Your task to perform on an android device: View the shopping cart on target.com. Add acer predator to the cart on target.com Image 0: 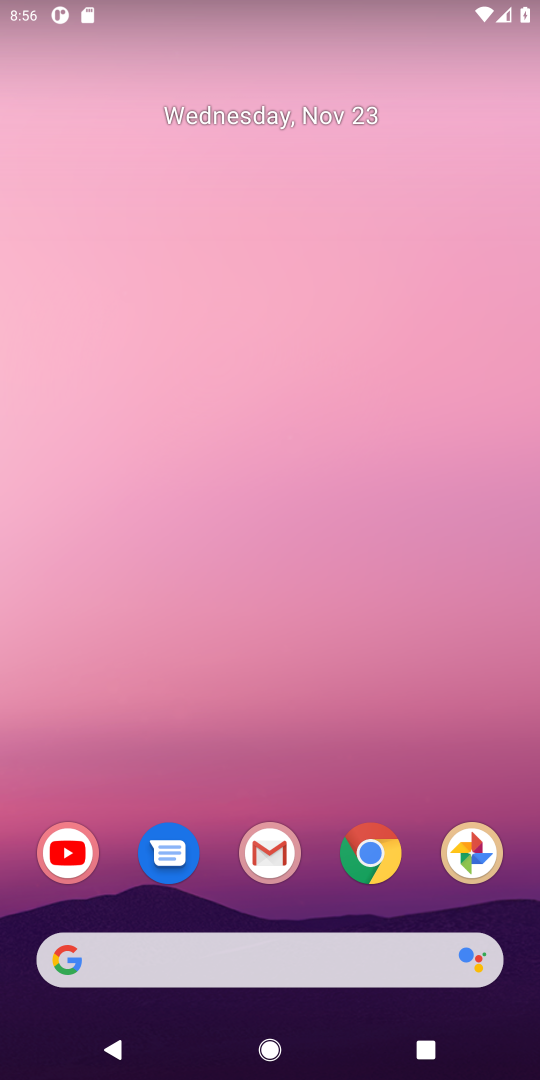
Step 0: click (374, 847)
Your task to perform on an android device: View the shopping cart on target.com. Add acer predator to the cart on target.com Image 1: 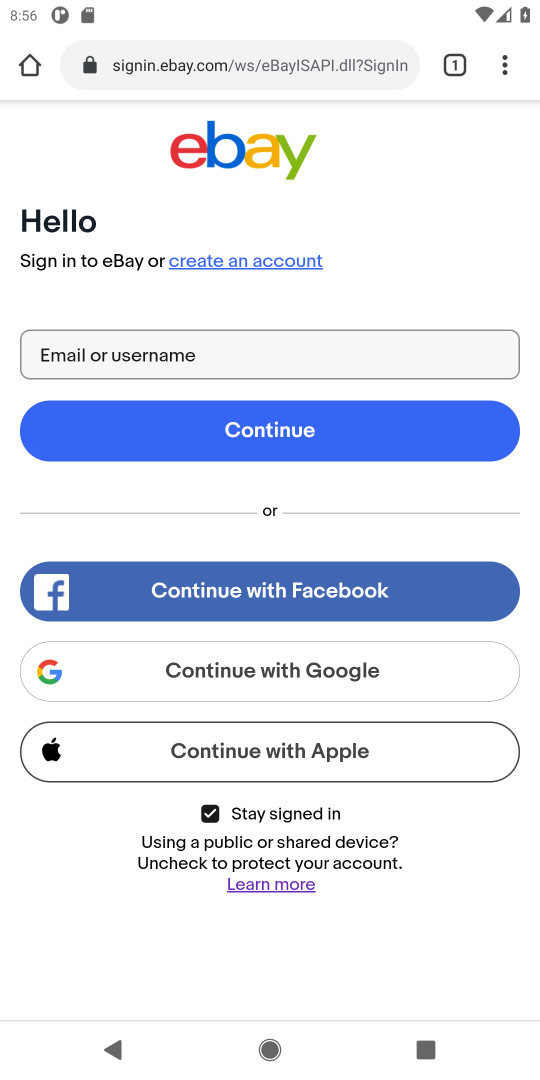
Step 1: click (204, 71)
Your task to perform on an android device: View the shopping cart on target.com. Add acer predator to the cart on target.com Image 2: 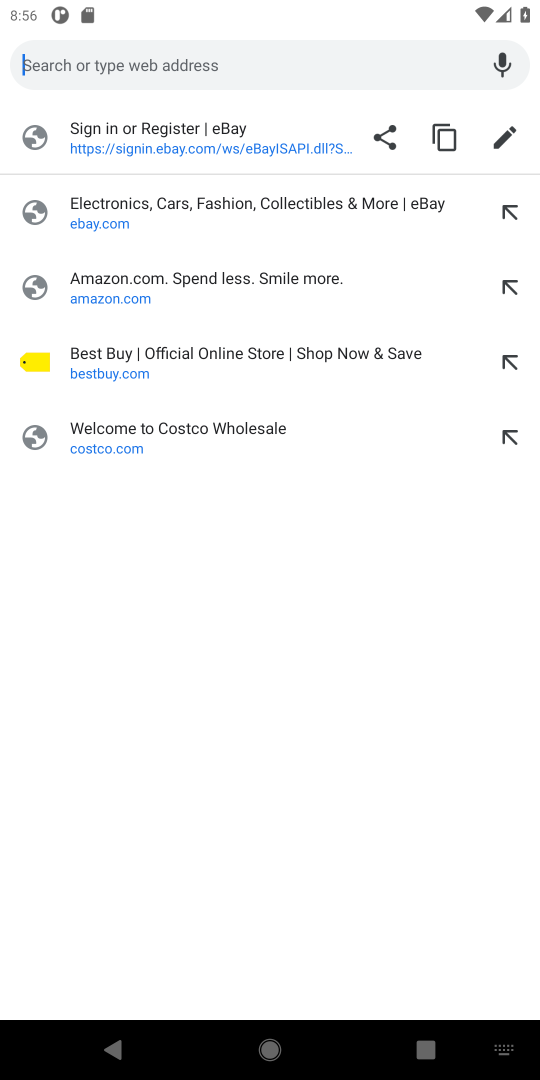
Step 2: type "target.com"
Your task to perform on an android device: View the shopping cart on target.com. Add acer predator to the cart on target.com Image 3: 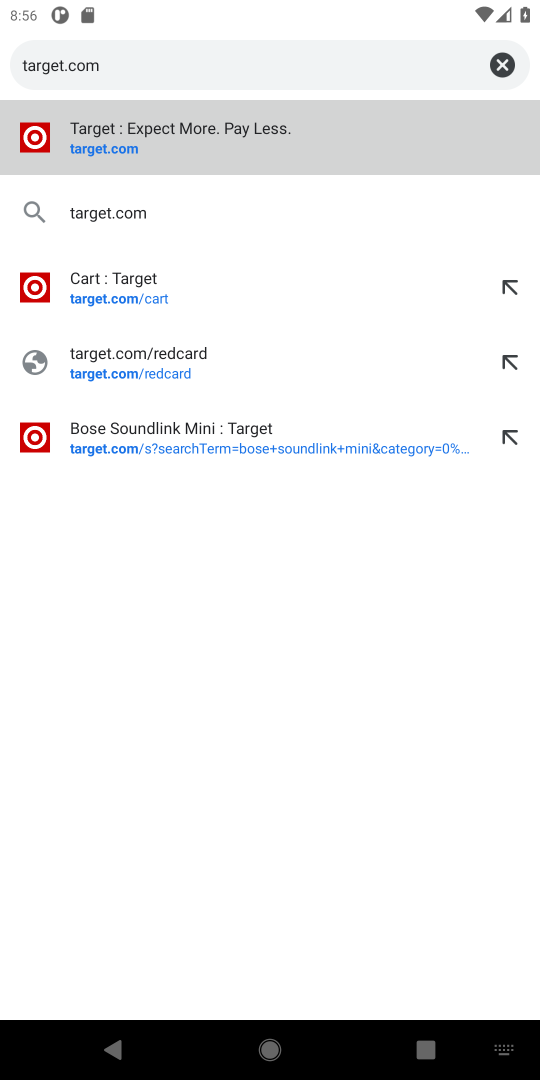
Step 3: click (74, 145)
Your task to perform on an android device: View the shopping cart on target.com. Add acer predator to the cart on target.com Image 4: 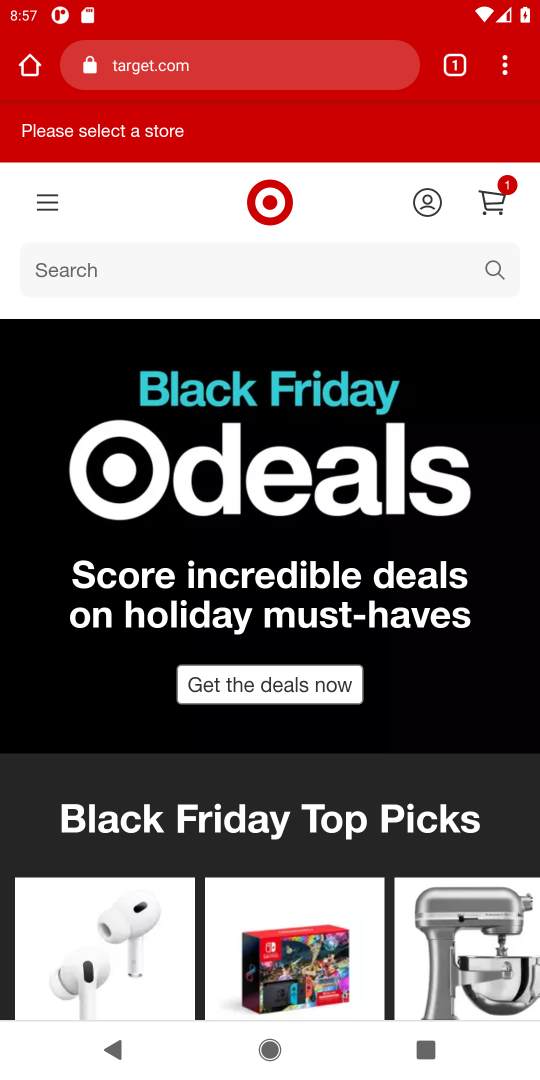
Step 4: click (492, 202)
Your task to perform on an android device: View the shopping cart on target.com. Add acer predator to the cart on target.com Image 5: 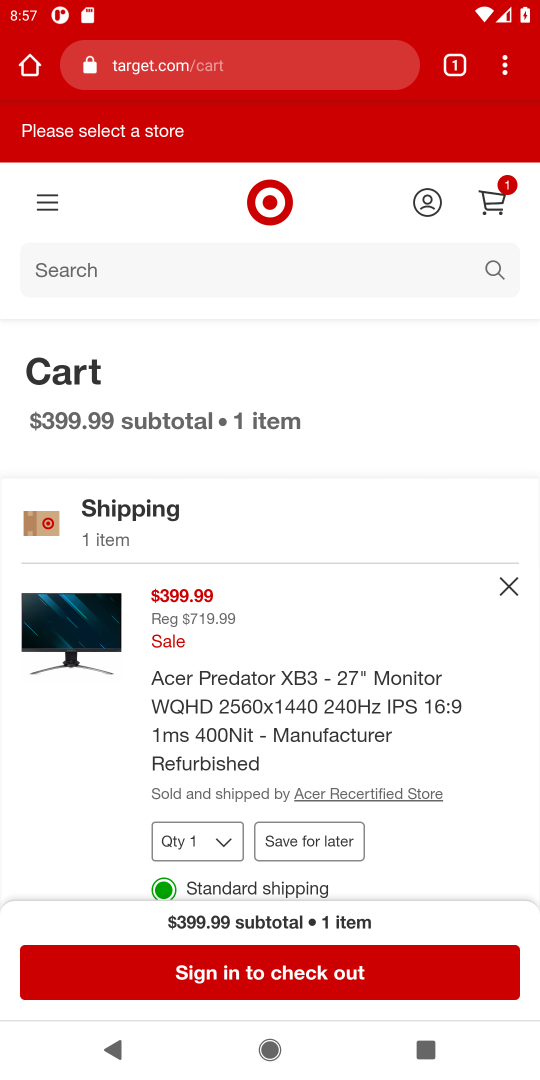
Step 5: drag from (232, 743) to (215, 500)
Your task to perform on an android device: View the shopping cart on target.com. Add acer predator to the cart on target.com Image 6: 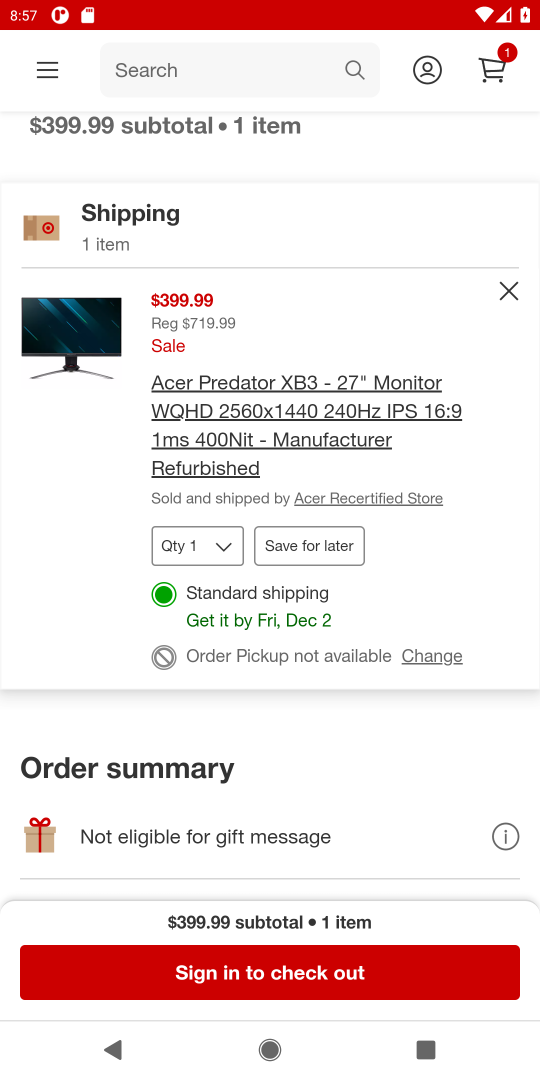
Step 6: click (355, 72)
Your task to perform on an android device: View the shopping cart on target.com. Add acer predator to the cart on target.com Image 7: 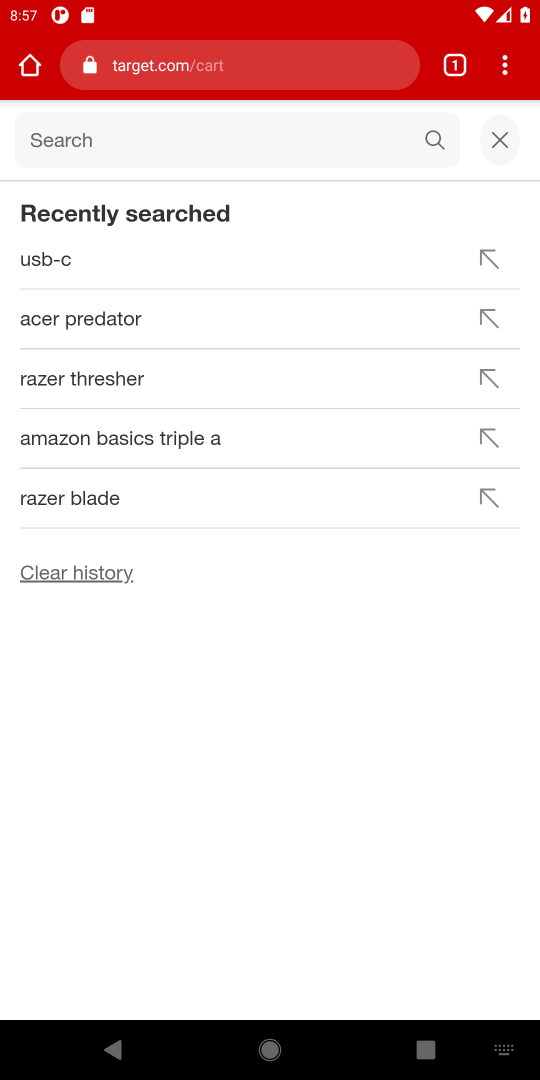
Step 7: type "acer predator"
Your task to perform on an android device: View the shopping cart on target.com. Add acer predator to the cart on target.com Image 8: 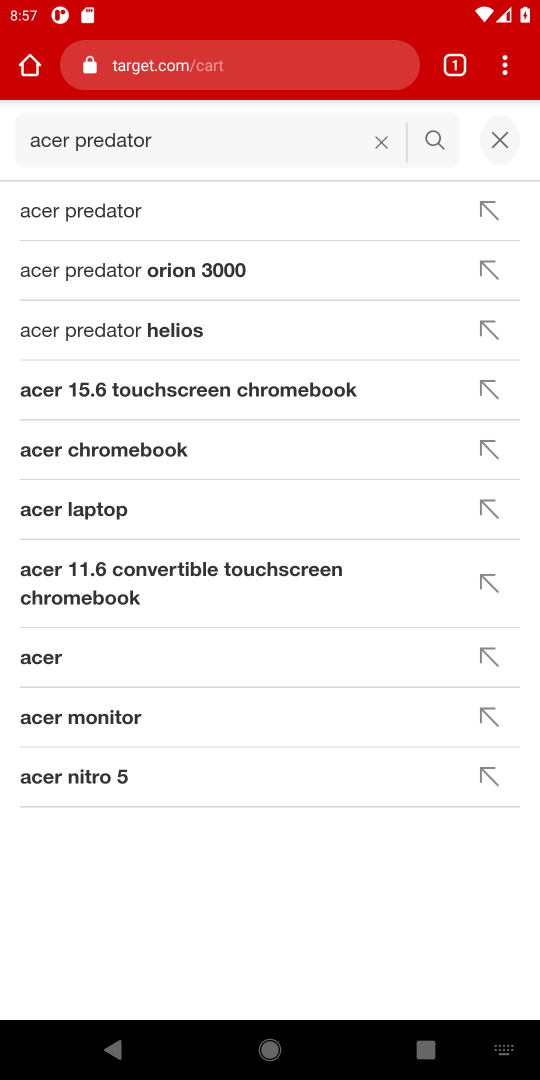
Step 8: click (64, 208)
Your task to perform on an android device: View the shopping cart on target.com. Add acer predator to the cart on target.com Image 9: 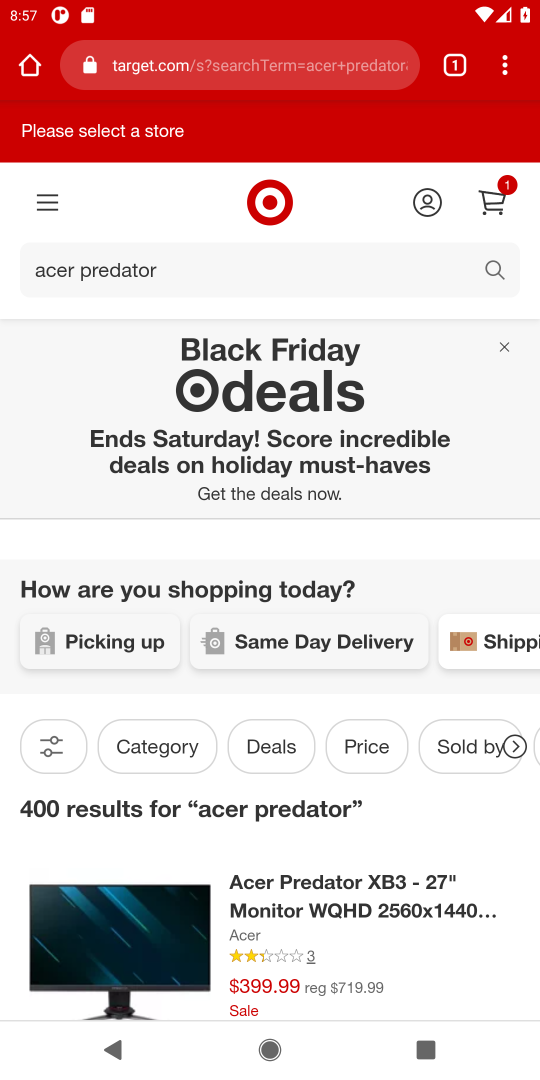
Step 9: drag from (221, 757) to (206, 451)
Your task to perform on an android device: View the shopping cart on target.com. Add acer predator to the cart on target.com Image 10: 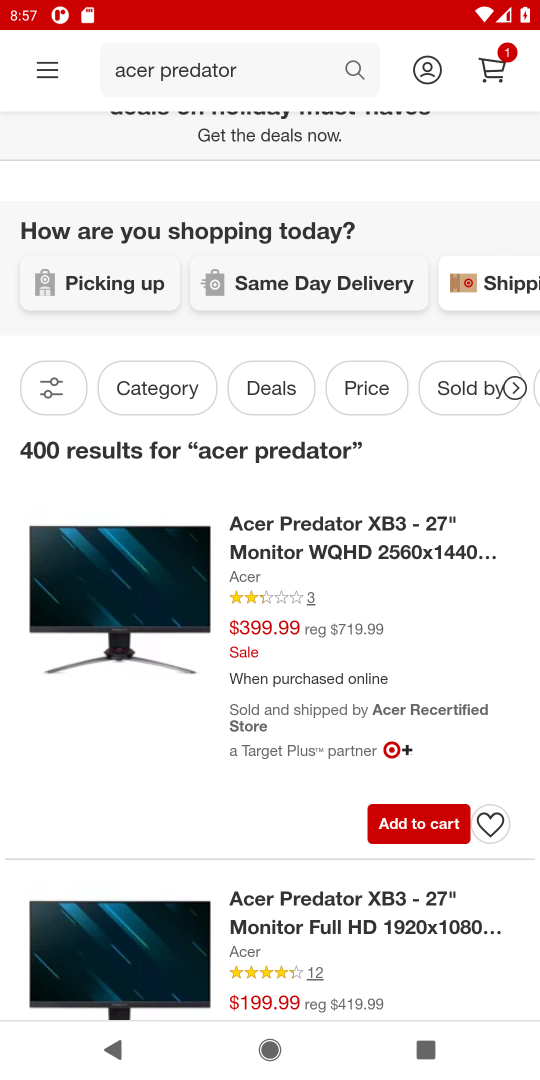
Step 10: click (426, 832)
Your task to perform on an android device: View the shopping cart on target.com. Add acer predator to the cart on target.com Image 11: 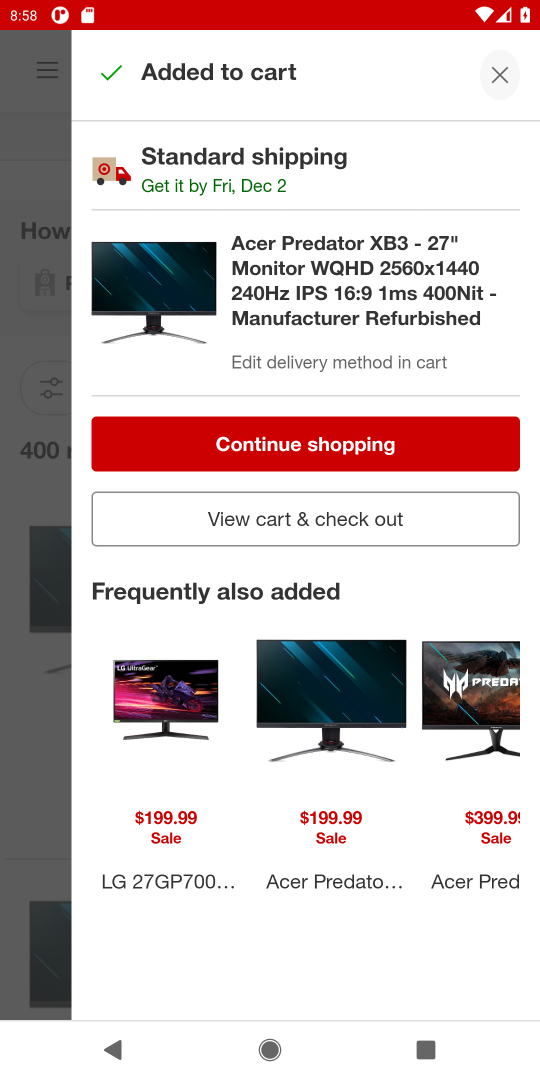
Step 11: task complete